Your task to perform on an android device: turn on the 12-hour format for clock Image 0: 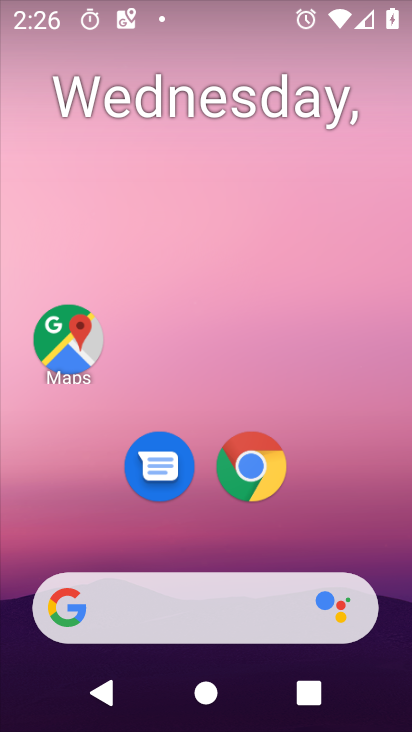
Step 0: drag from (309, 522) to (280, 130)
Your task to perform on an android device: turn on the 12-hour format for clock Image 1: 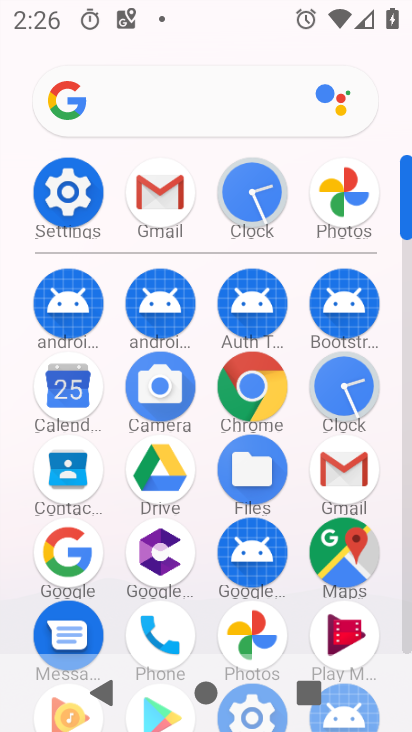
Step 1: click (258, 199)
Your task to perform on an android device: turn on the 12-hour format for clock Image 2: 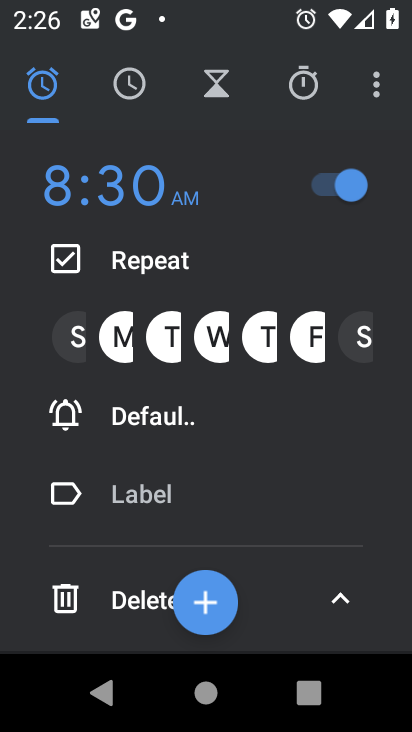
Step 2: click (366, 90)
Your task to perform on an android device: turn on the 12-hour format for clock Image 3: 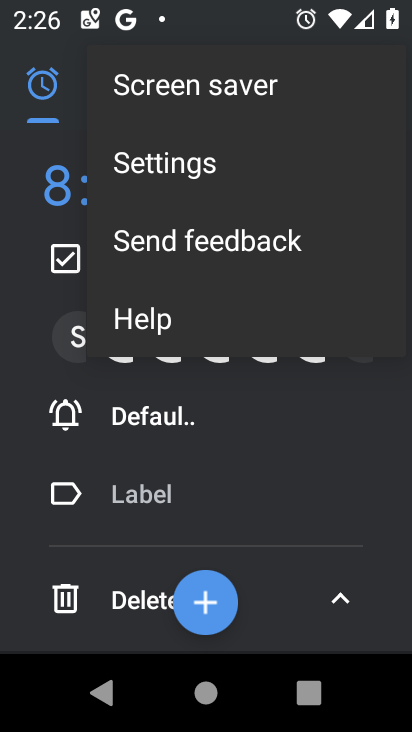
Step 3: click (247, 165)
Your task to perform on an android device: turn on the 12-hour format for clock Image 4: 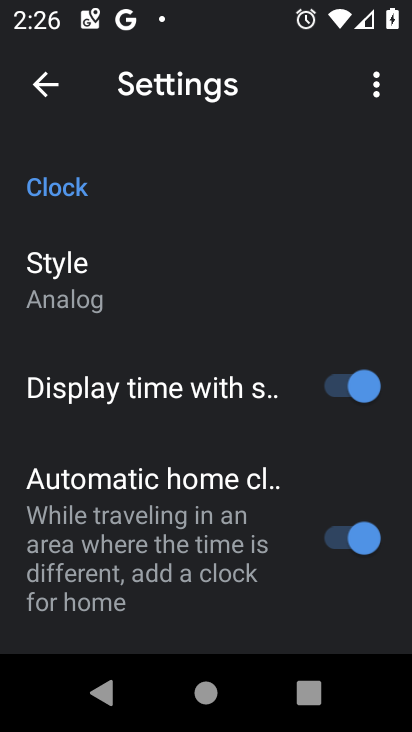
Step 4: drag from (175, 512) to (160, 202)
Your task to perform on an android device: turn on the 12-hour format for clock Image 5: 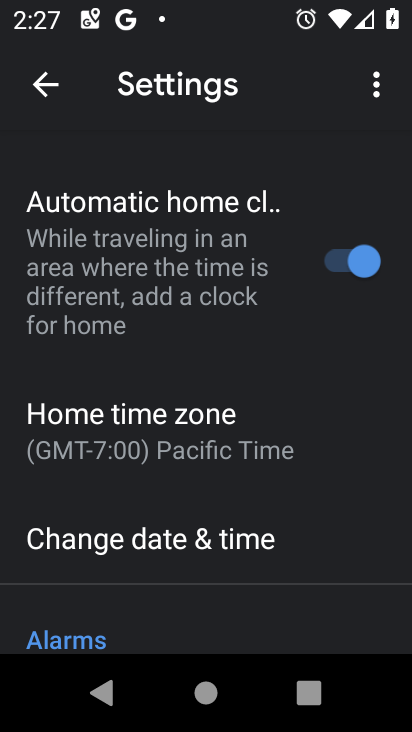
Step 5: drag from (193, 481) to (206, 182)
Your task to perform on an android device: turn on the 12-hour format for clock Image 6: 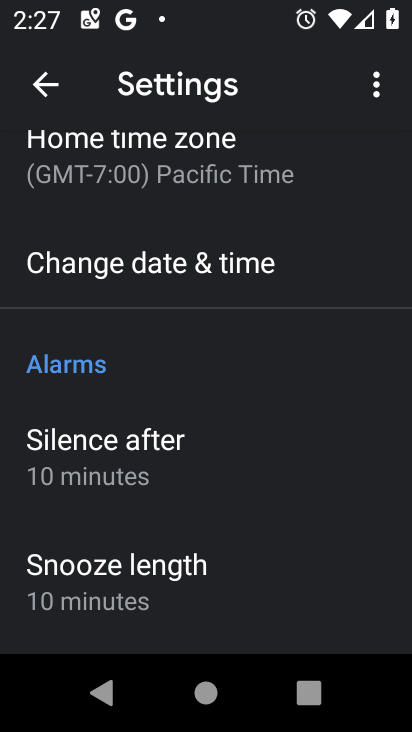
Step 6: drag from (225, 501) to (171, 146)
Your task to perform on an android device: turn on the 12-hour format for clock Image 7: 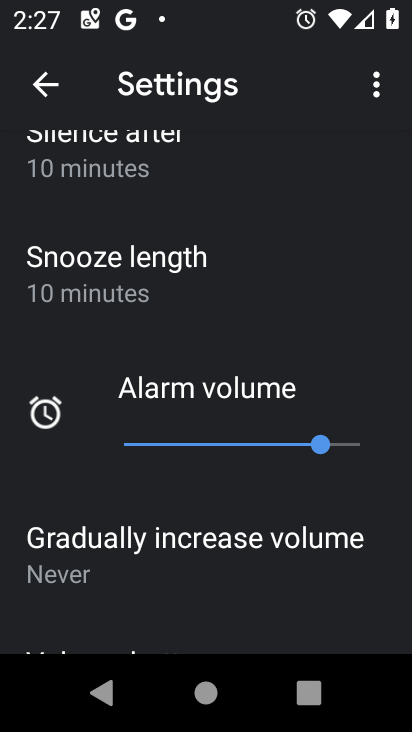
Step 7: drag from (172, 499) to (166, 171)
Your task to perform on an android device: turn on the 12-hour format for clock Image 8: 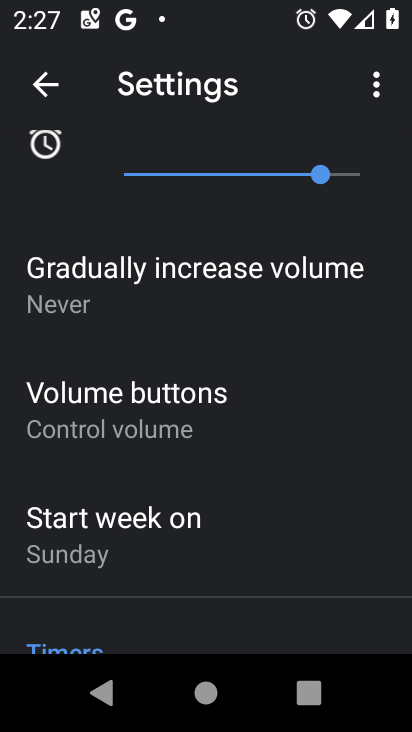
Step 8: drag from (218, 543) to (216, 290)
Your task to perform on an android device: turn on the 12-hour format for clock Image 9: 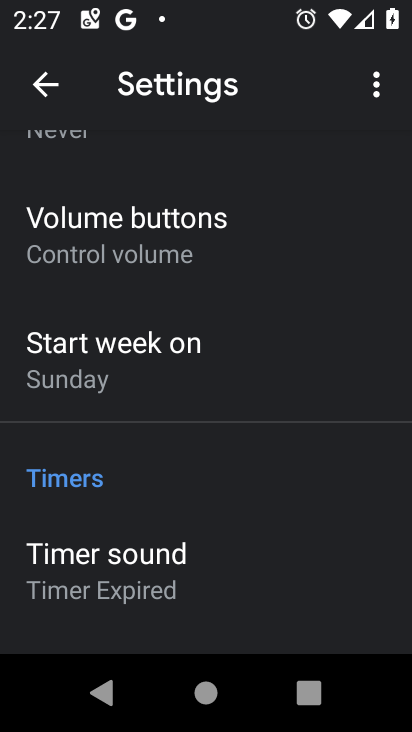
Step 9: drag from (239, 535) to (213, 335)
Your task to perform on an android device: turn on the 12-hour format for clock Image 10: 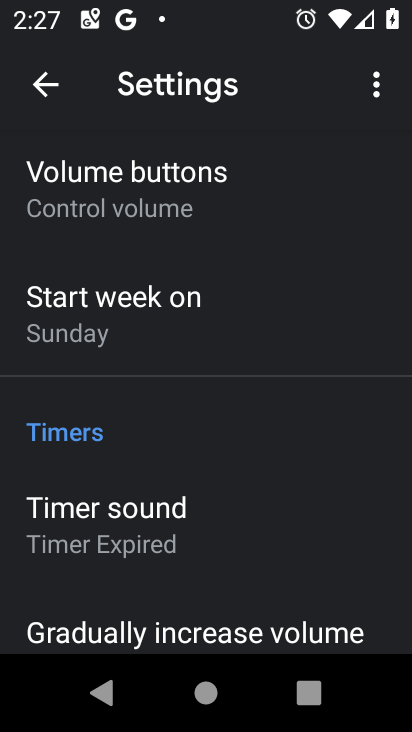
Step 10: drag from (237, 269) to (262, 597)
Your task to perform on an android device: turn on the 12-hour format for clock Image 11: 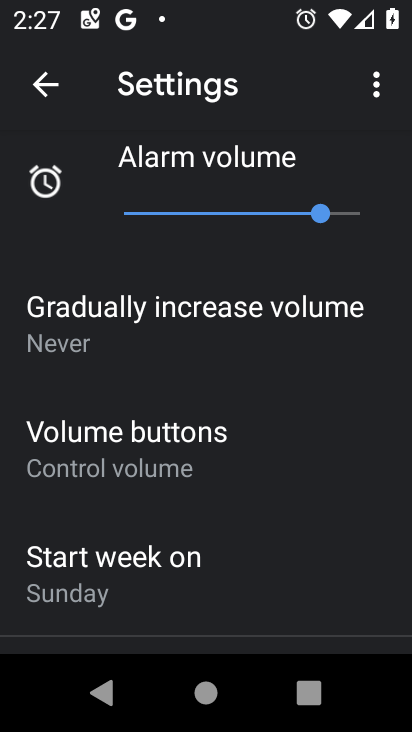
Step 11: drag from (294, 454) to (316, 634)
Your task to perform on an android device: turn on the 12-hour format for clock Image 12: 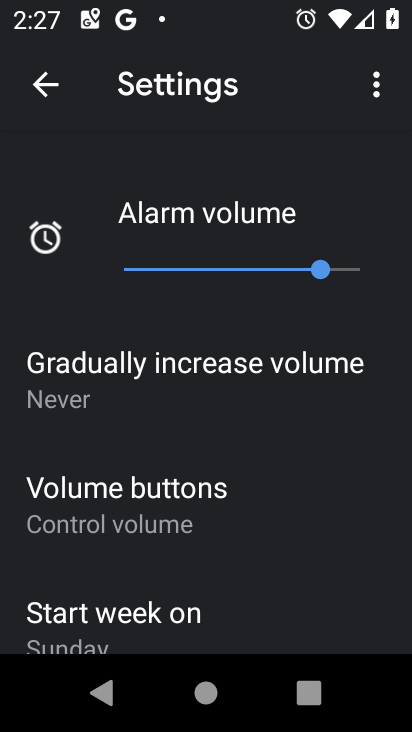
Step 12: drag from (282, 175) to (300, 552)
Your task to perform on an android device: turn on the 12-hour format for clock Image 13: 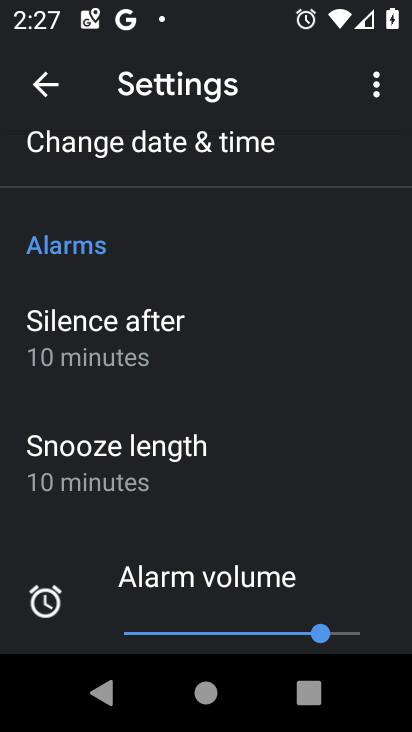
Step 13: drag from (238, 262) to (264, 513)
Your task to perform on an android device: turn on the 12-hour format for clock Image 14: 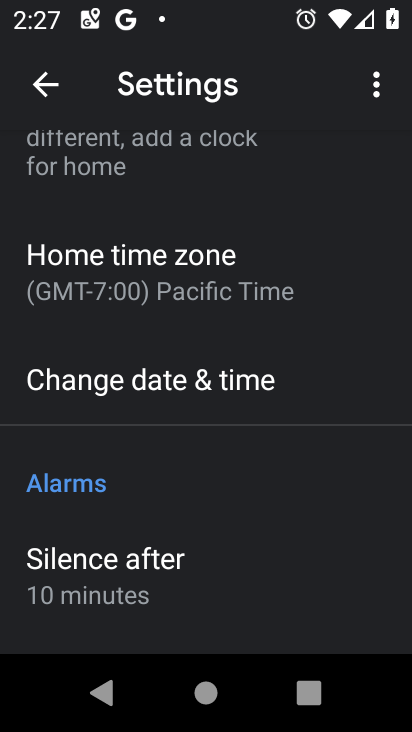
Step 14: click (221, 365)
Your task to perform on an android device: turn on the 12-hour format for clock Image 15: 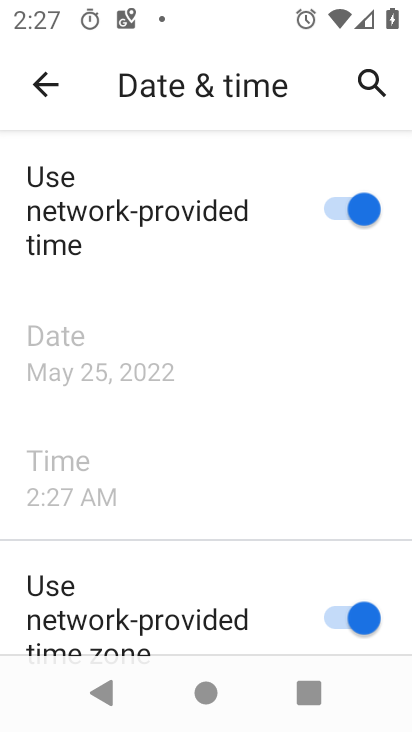
Step 15: task complete